Your task to perform on an android device: delete the emails in spam in the gmail app Image 0: 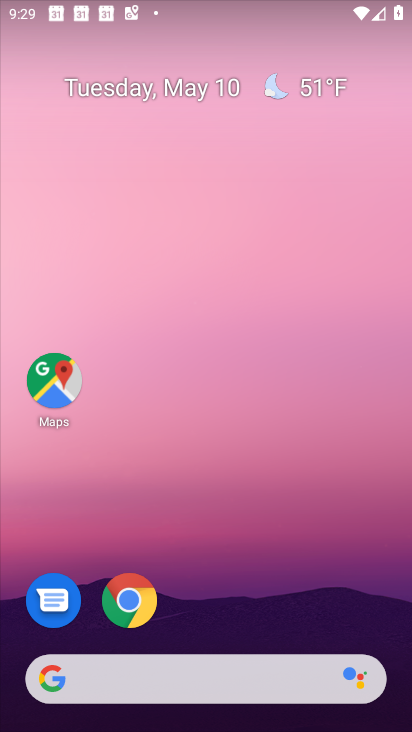
Step 0: drag from (236, 621) to (242, 0)
Your task to perform on an android device: delete the emails in spam in the gmail app Image 1: 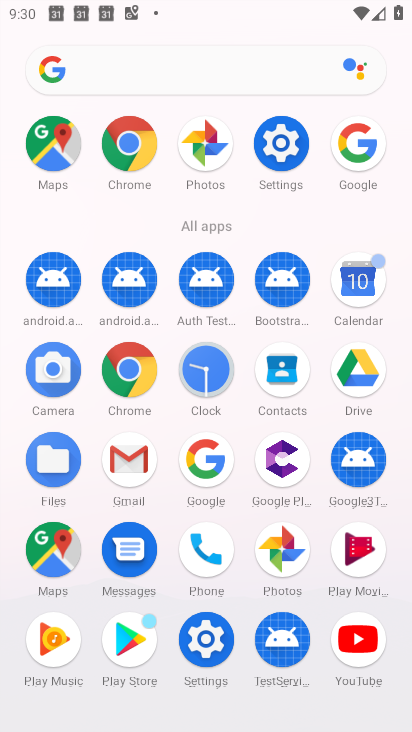
Step 1: click (143, 471)
Your task to perform on an android device: delete the emails in spam in the gmail app Image 2: 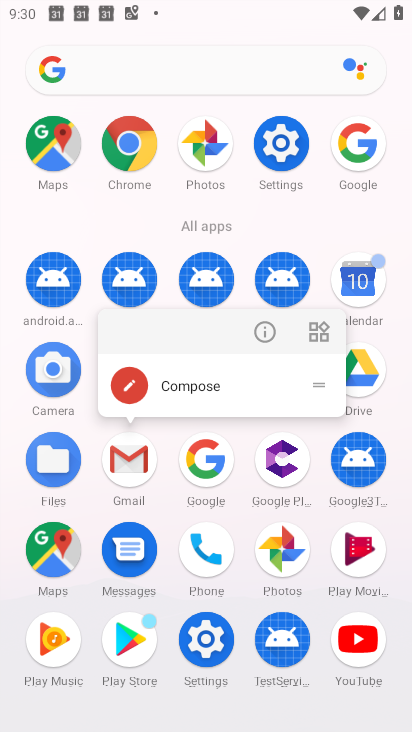
Step 2: click (142, 450)
Your task to perform on an android device: delete the emails in spam in the gmail app Image 3: 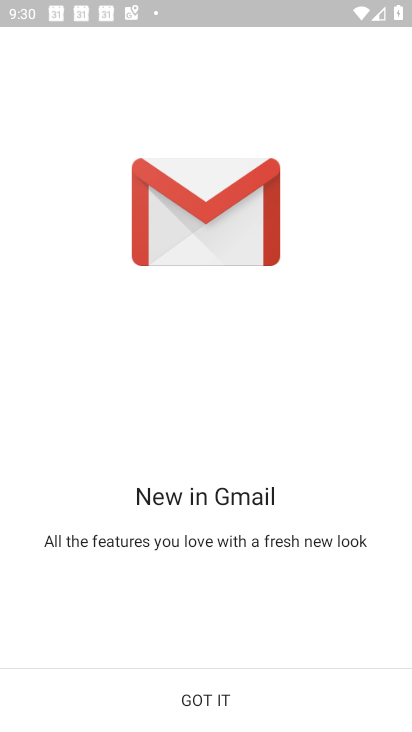
Step 3: click (222, 694)
Your task to perform on an android device: delete the emails in spam in the gmail app Image 4: 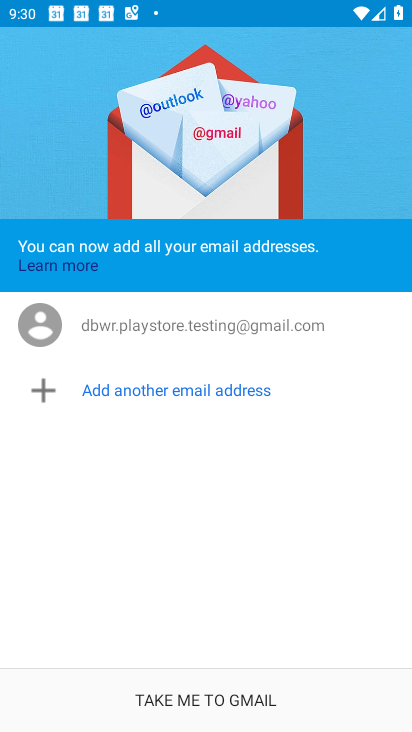
Step 4: click (190, 706)
Your task to perform on an android device: delete the emails in spam in the gmail app Image 5: 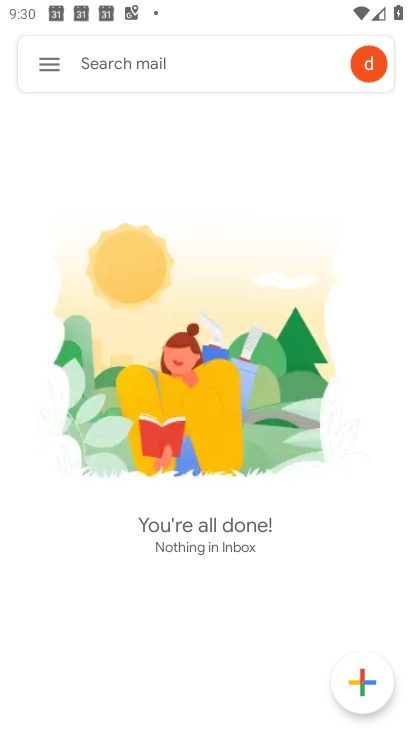
Step 5: click (55, 50)
Your task to perform on an android device: delete the emails in spam in the gmail app Image 6: 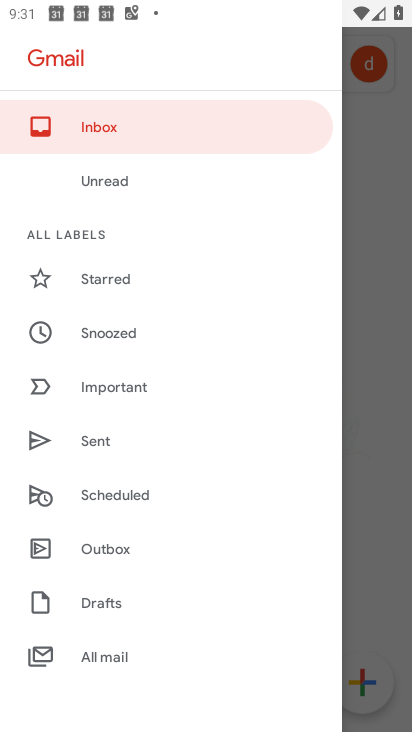
Step 6: drag from (142, 562) to (96, 168)
Your task to perform on an android device: delete the emails in spam in the gmail app Image 7: 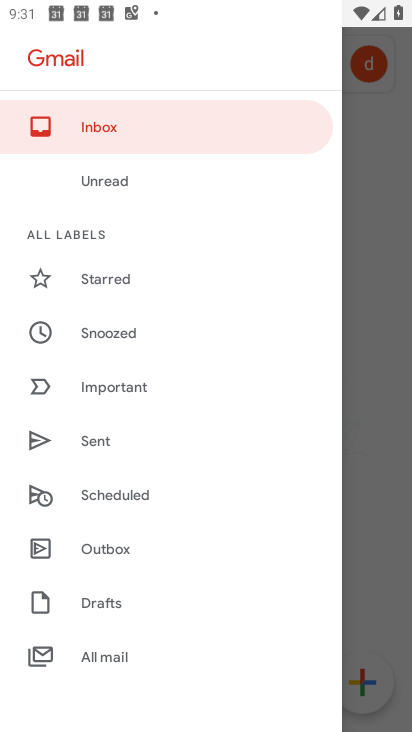
Step 7: drag from (116, 615) to (113, 170)
Your task to perform on an android device: delete the emails in spam in the gmail app Image 8: 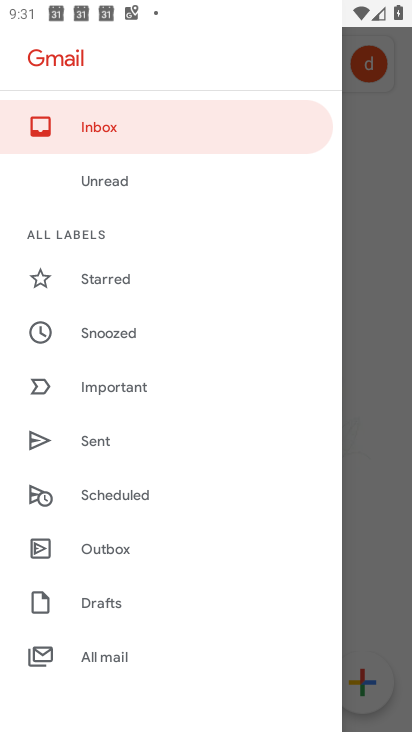
Step 8: drag from (108, 568) to (108, 159)
Your task to perform on an android device: delete the emails in spam in the gmail app Image 9: 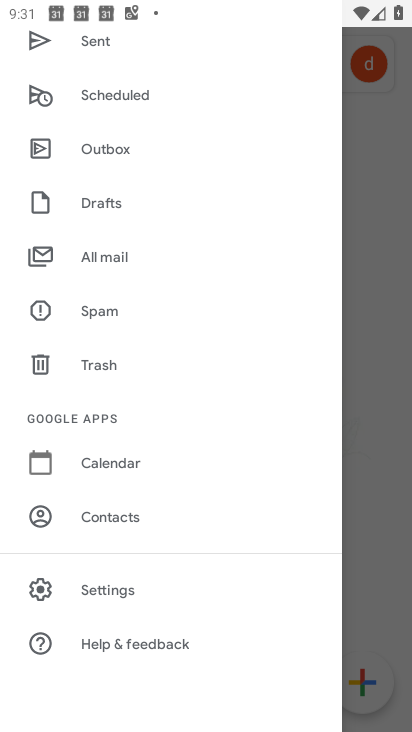
Step 9: click (97, 308)
Your task to perform on an android device: delete the emails in spam in the gmail app Image 10: 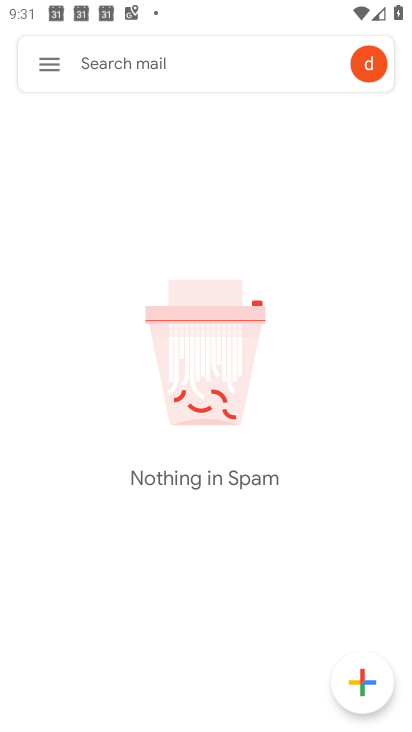
Step 10: task complete